Your task to perform on an android device: Open the map Image 0: 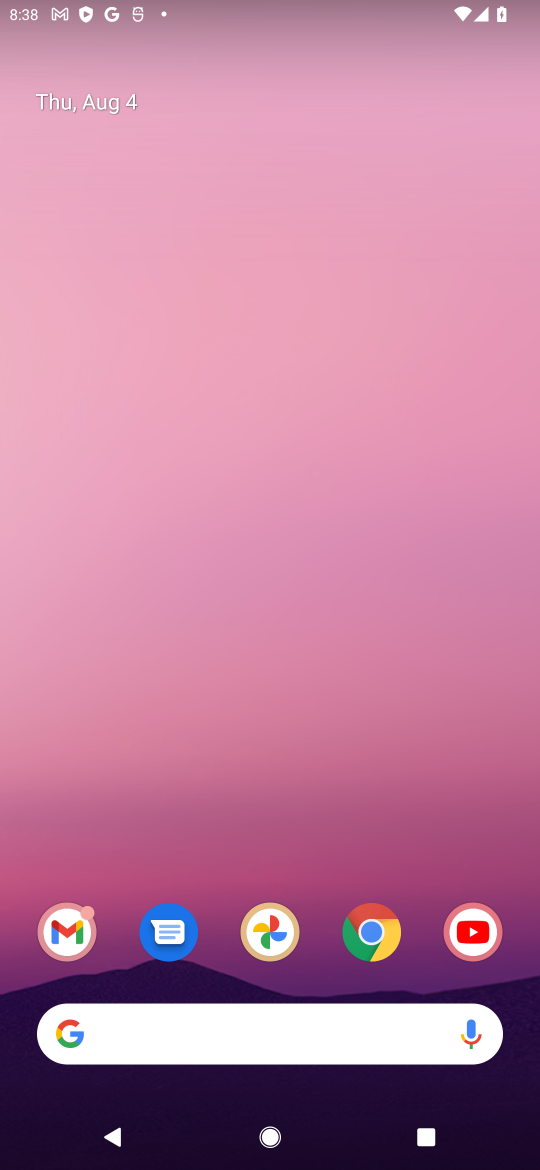
Step 0: drag from (266, 344) to (288, 83)
Your task to perform on an android device: Open the map Image 1: 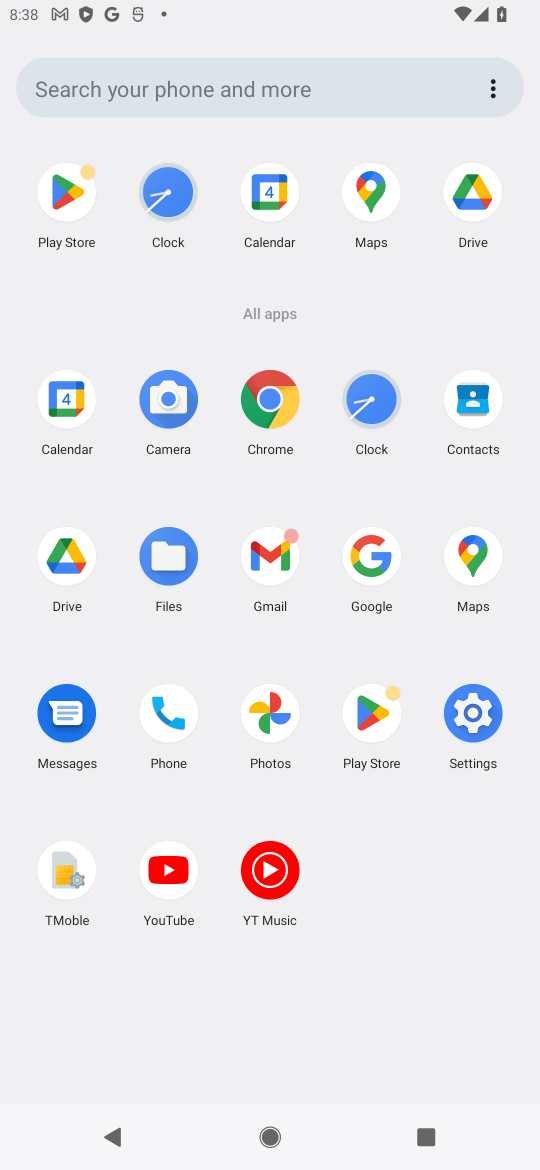
Step 1: click (452, 565)
Your task to perform on an android device: Open the map Image 2: 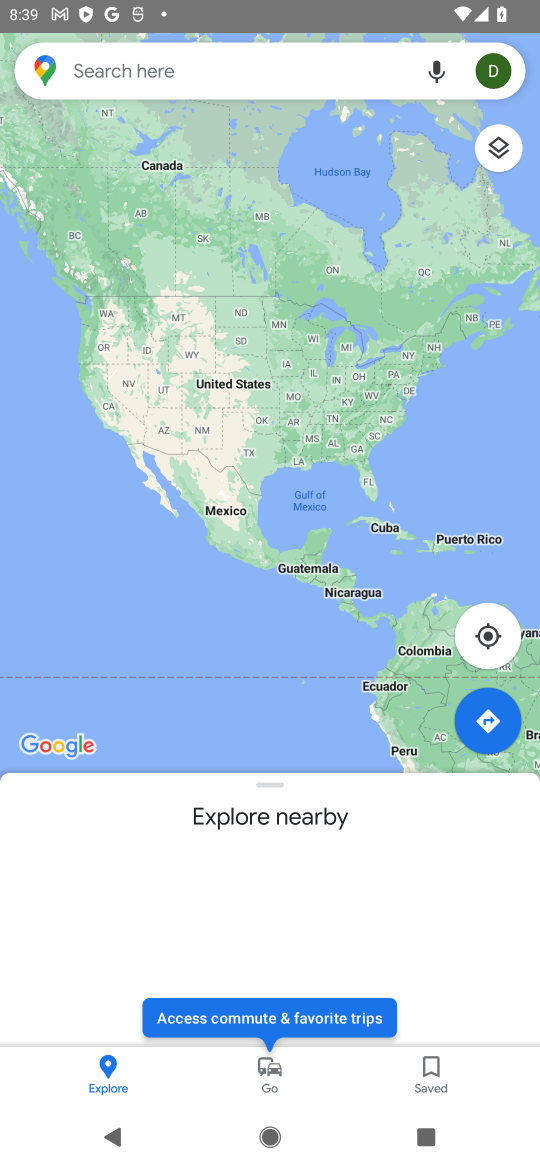
Step 2: task complete